Your task to perform on an android device: Open the web browser Image 0: 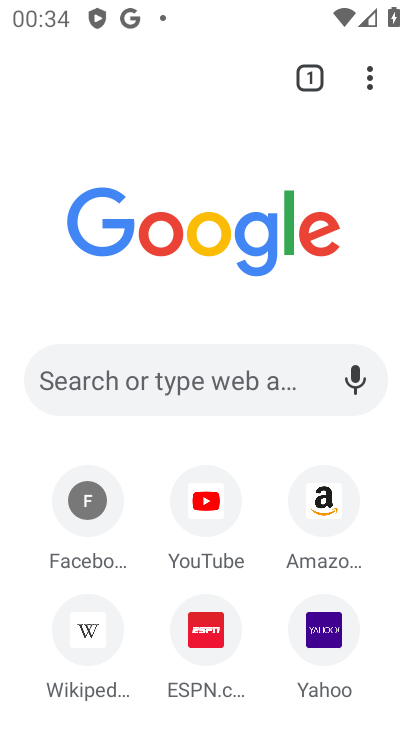
Step 0: click (237, 397)
Your task to perform on an android device: Open the web browser Image 1: 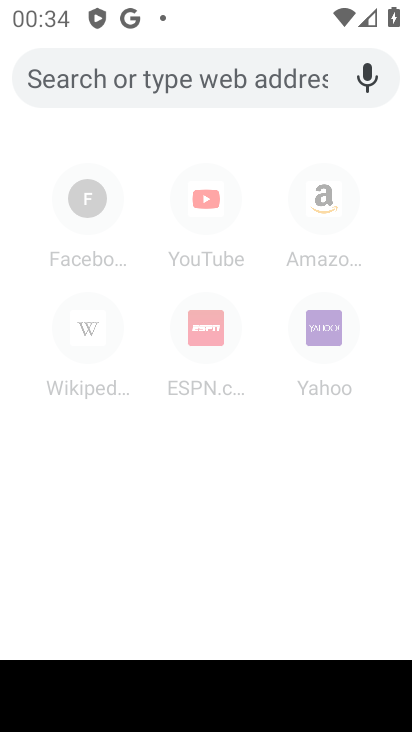
Step 1: task complete